Your task to perform on an android device: turn on notifications settings in the gmail app Image 0: 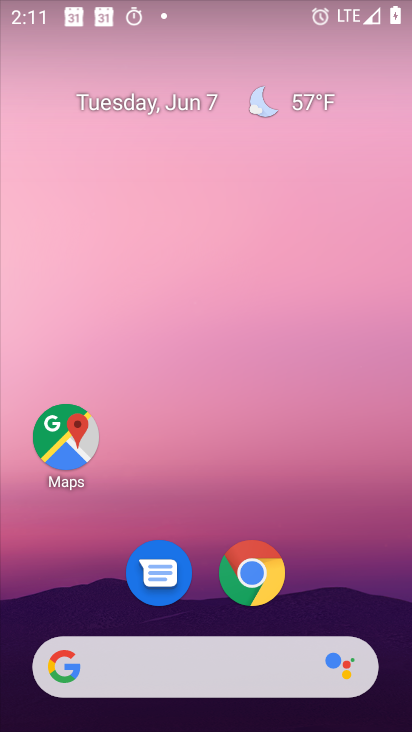
Step 0: drag from (313, 585) to (297, 89)
Your task to perform on an android device: turn on notifications settings in the gmail app Image 1: 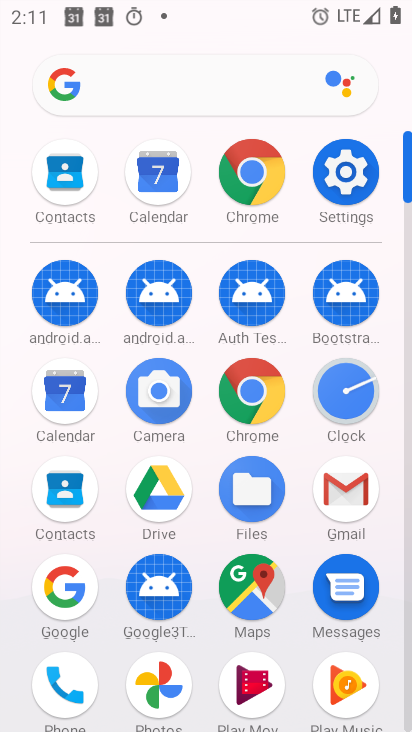
Step 1: click (355, 473)
Your task to perform on an android device: turn on notifications settings in the gmail app Image 2: 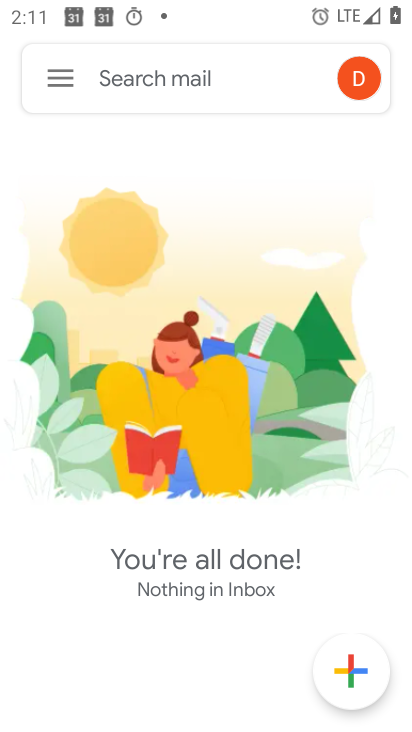
Step 2: press home button
Your task to perform on an android device: turn on notifications settings in the gmail app Image 3: 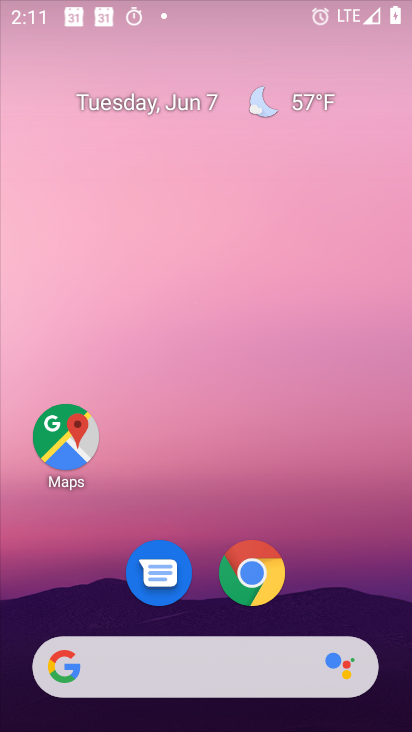
Step 3: drag from (310, 570) to (297, 106)
Your task to perform on an android device: turn on notifications settings in the gmail app Image 4: 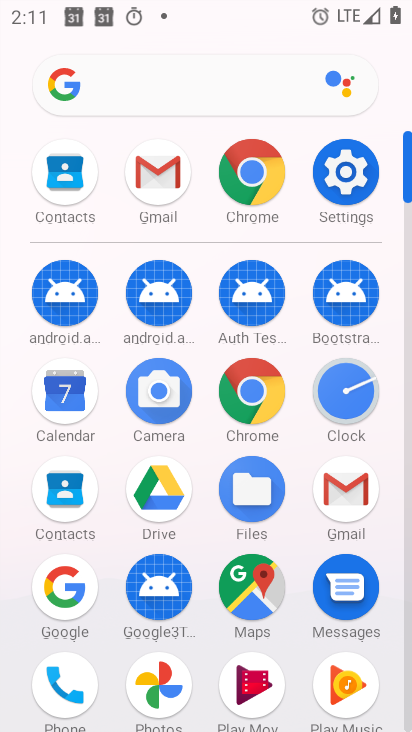
Step 4: click (348, 484)
Your task to perform on an android device: turn on notifications settings in the gmail app Image 5: 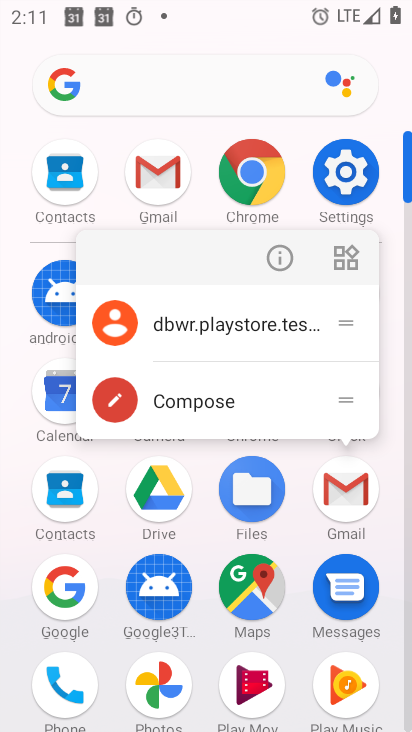
Step 5: click (278, 249)
Your task to perform on an android device: turn on notifications settings in the gmail app Image 6: 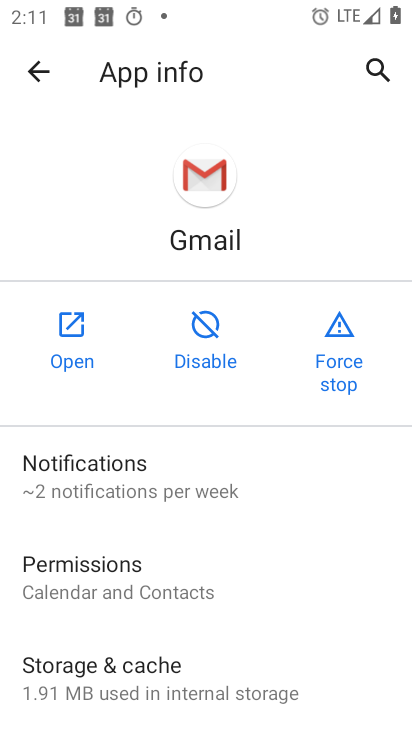
Step 6: click (156, 488)
Your task to perform on an android device: turn on notifications settings in the gmail app Image 7: 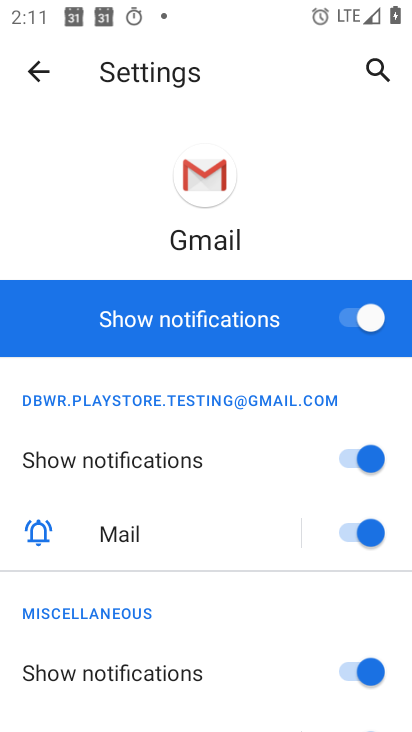
Step 7: task complete